Your task to perform on an android device: Open my contact list Image 0: 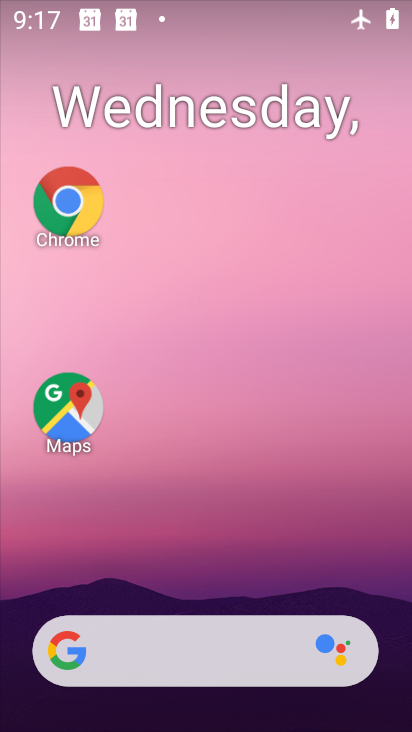
Step 0: drag from (214, 603) to (167, 15)
Your task to perform on an android device: Open my contact list Image 1: 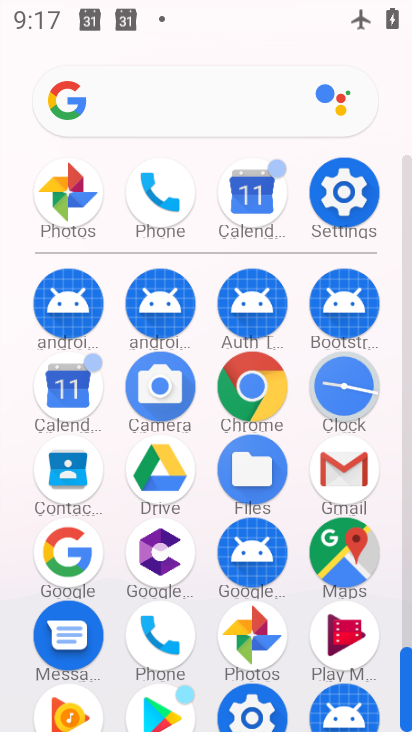
Step 1: click (163, 614)
Your task to perform on an android device: Open my contact list Image 2: 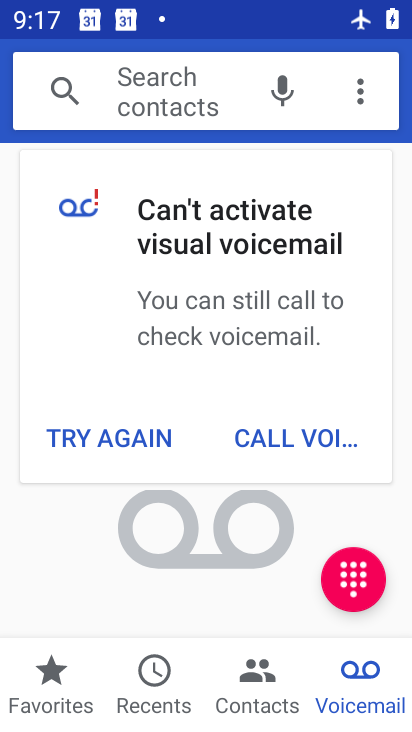
Step 2: click (270, 677)
Your task to perform on an android device: Open my contact list Image 3: 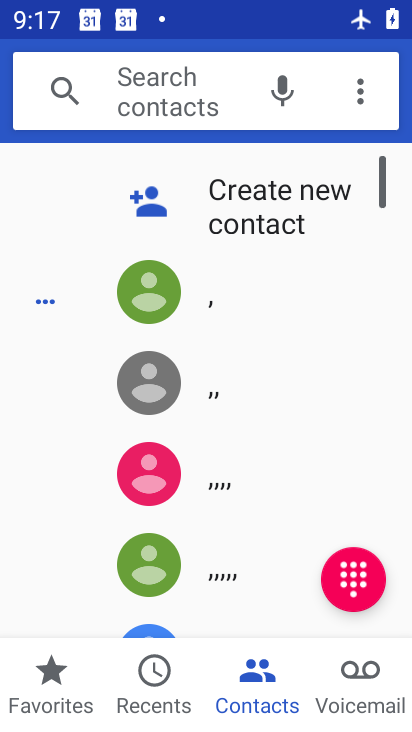
Step 3: task complete